Your task to perform on an android device: Open accessibility settings Image 0: 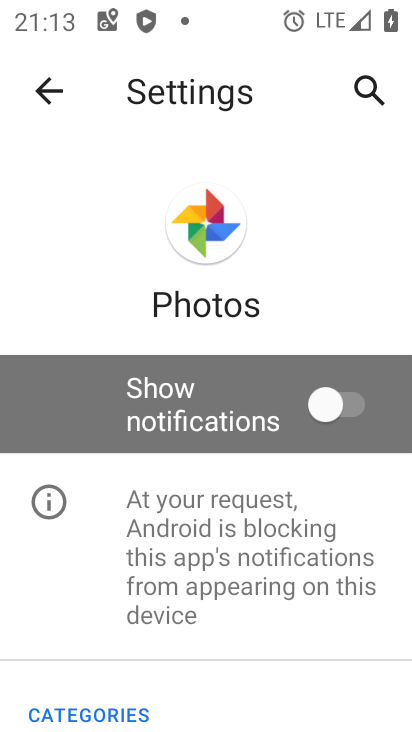
Step 0: press home button
Your task to perform on an android device: Open accessibility settings Image 1: 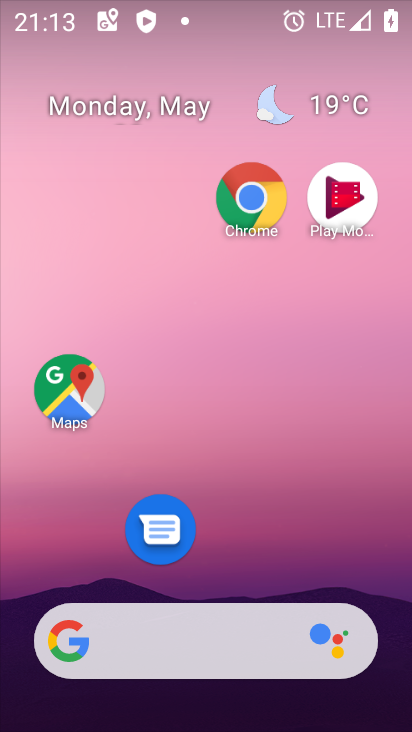
Step 1: drag from (258, 562) to (227, 48)
Your task to perform on an android device: Open accessibility settings Image 2: 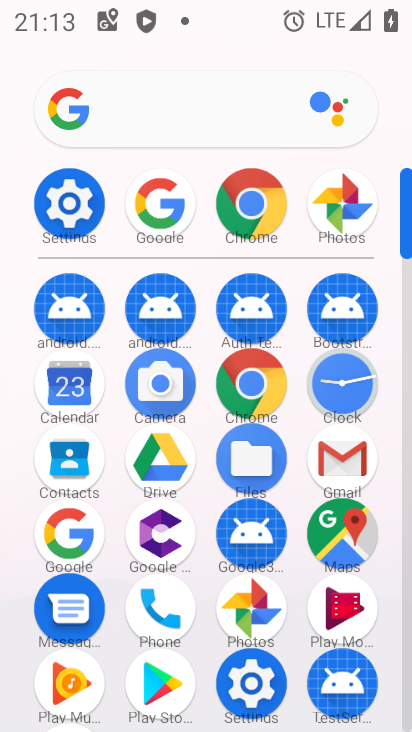
Step 2: click (68, 209)
Your task to perform on an android device: Open accessibility settings Image 3: 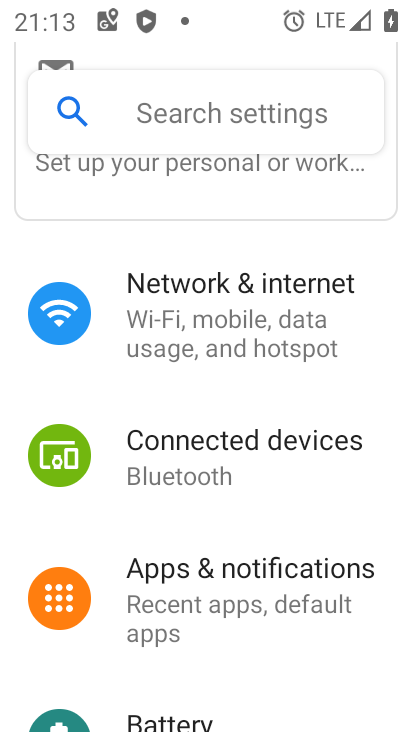
Step 3: drag from (214, 663) to (241, 130)
Your task to perform on an android device: Open accessibility settings Image 4: 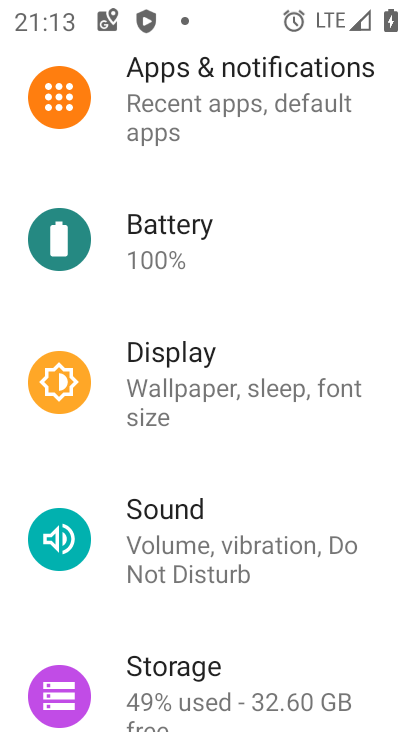
Step 4: drag from (203, 703) to (219, 231)
Your task to perform on an android device: Open accessibility settings Image 5: 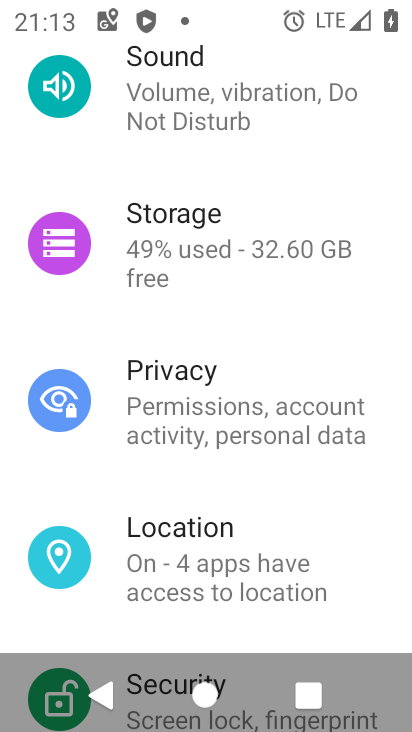
Step 5: drag from (242, 556) to (243, 338)
Your task to perform on an android device: Open accessibility settings Image 6: 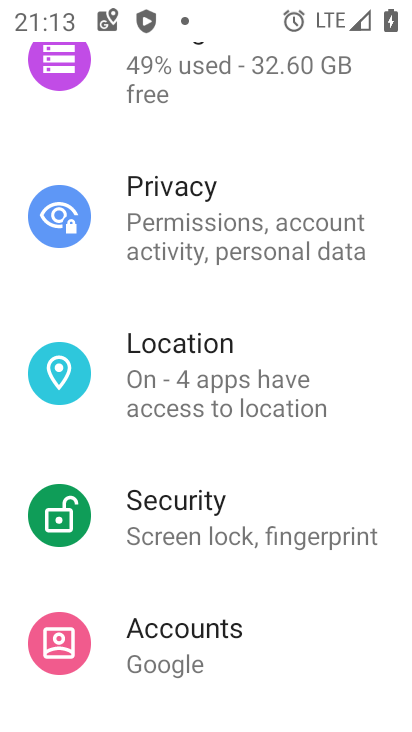
Step 6: drag from (239, 556) to (243, 264)
Your task to perform on an android device: Open accessibility settings Image 7: 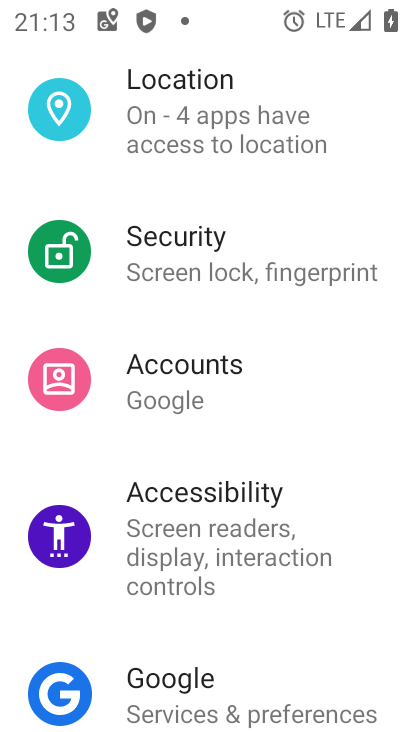
Step 7: click (183, 527)
Your task to perform on an android device: Open accessibility settings Image 8: 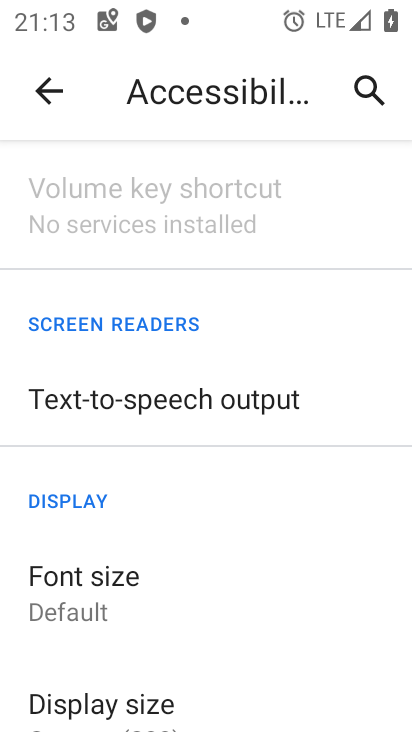
Step 8: task complete